Your task to perform on an android device: Find coffee shops on Maps Image 0: 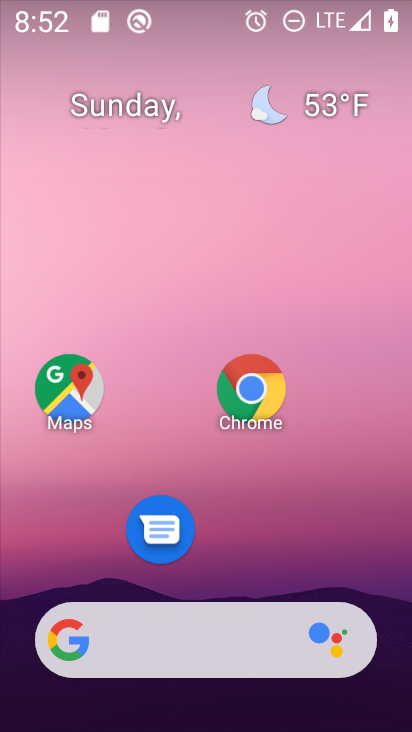
Step 0: click (83, 406)
Your task to perform on an android device: Find coffee shops on Maps Image 1: 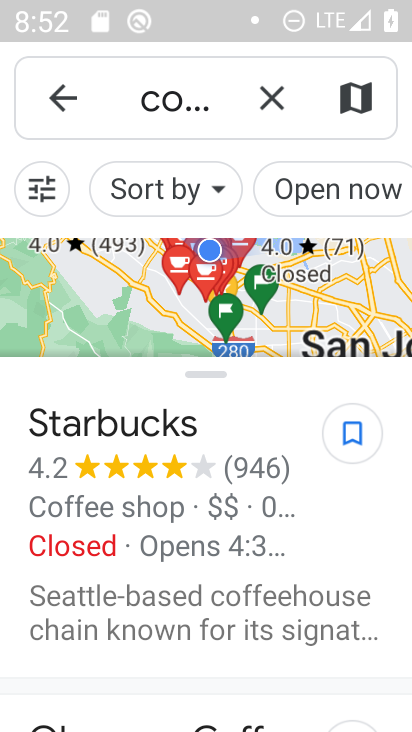
Step 1: click (212, 105)
Your task to perform on an android device: Find coffee shops on Maps Image 2: 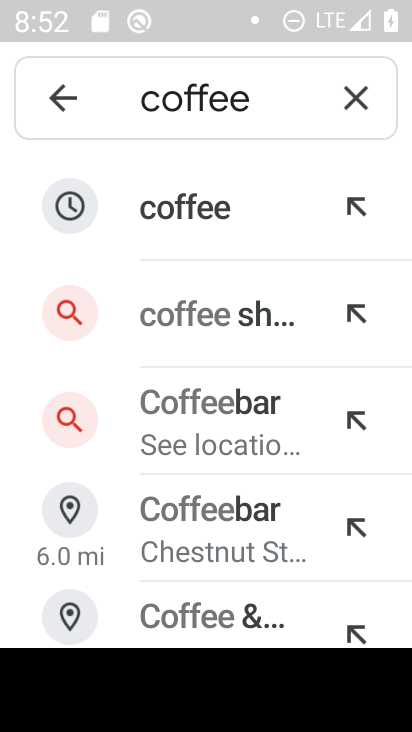
Step 2: type " shops"
Your task to perform on an android device: Find coffee shops on Maps Image 3: 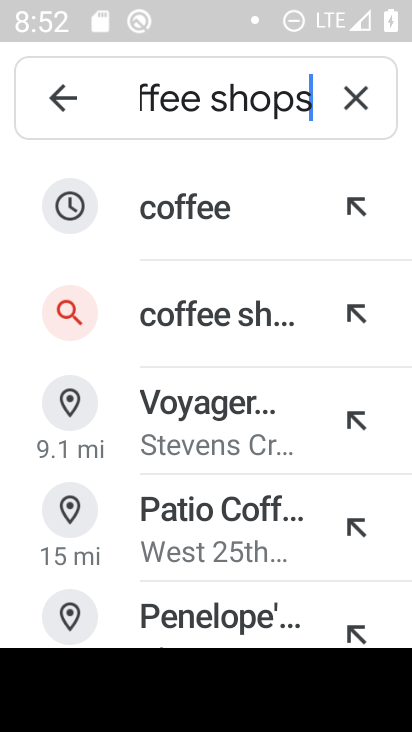
Step 3: click (241, 331)
Your task to perform on an android device: Find coffee shops on Maps Image 4: 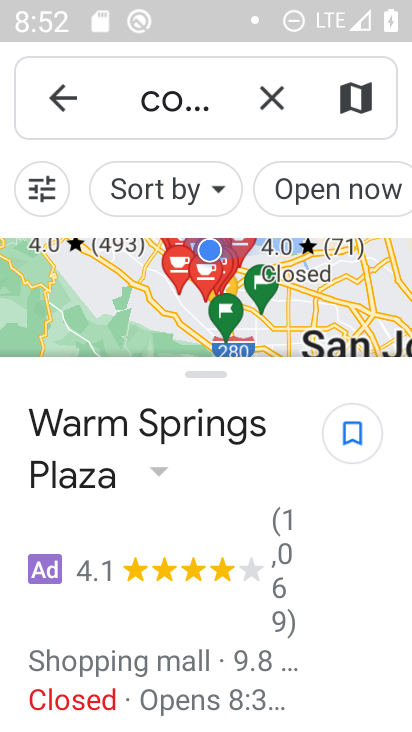
Step 4: task complete